Your task to perform on an android device: open a bookmark in the chrome app Image 0: 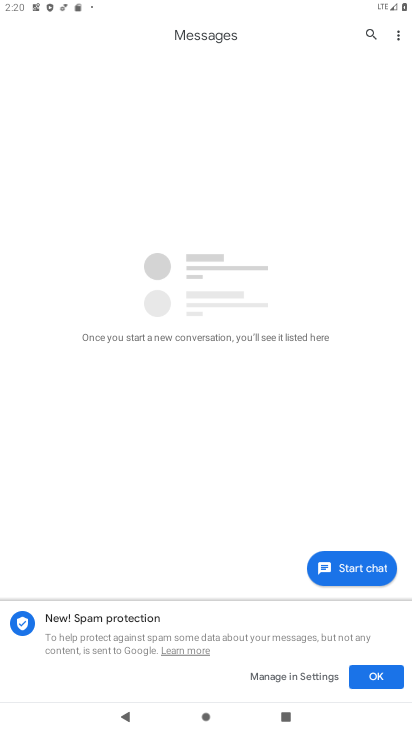
Step 0: press home button
Your task to perform on an android device: open a bookmark in the chrome app Image 1: 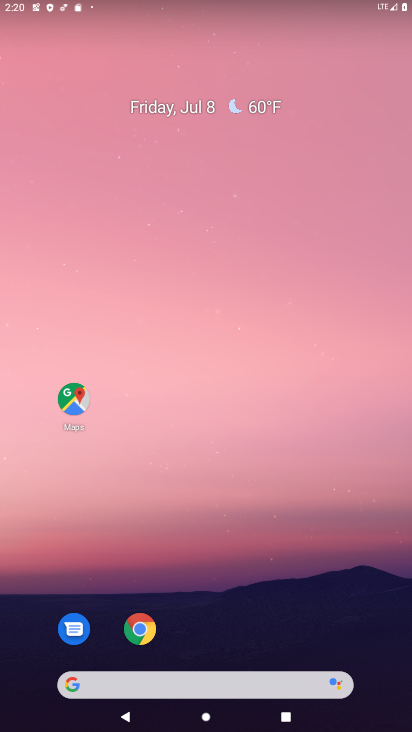
Step 1: click (139, 634)
Your task to perform on an android device: open a bookmark in the chrome app Image 2: 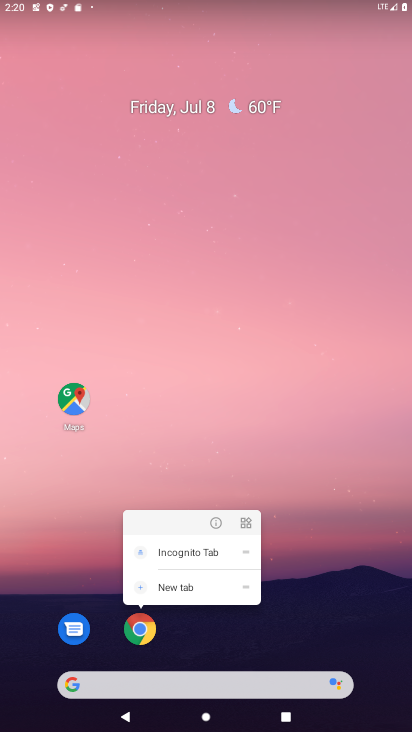
Step 2: click (130, 638)
Your task to perform on an android device: open a bookmark in the chrome app Image 3: 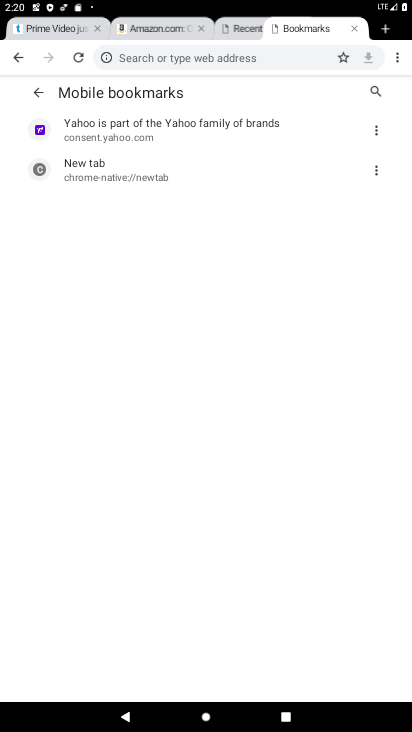
Step 3: click (400, 46)
Your task to perform on an android device: open a bookmark in the chrome app Image 4: 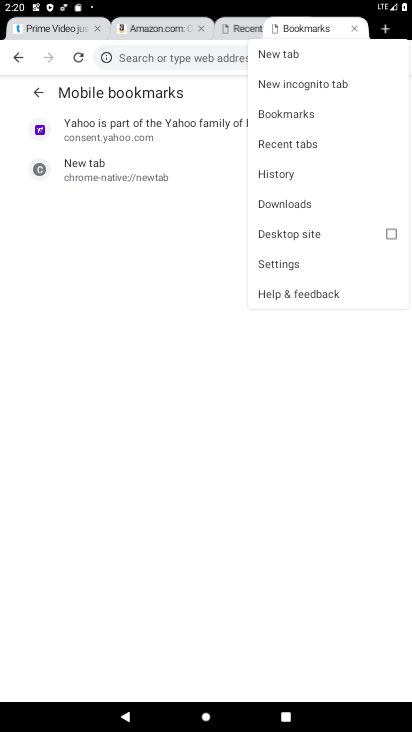
Step 4: click (308, 119)
Your task to perform on an android device: open a bookmark in the chrome app Image 5: 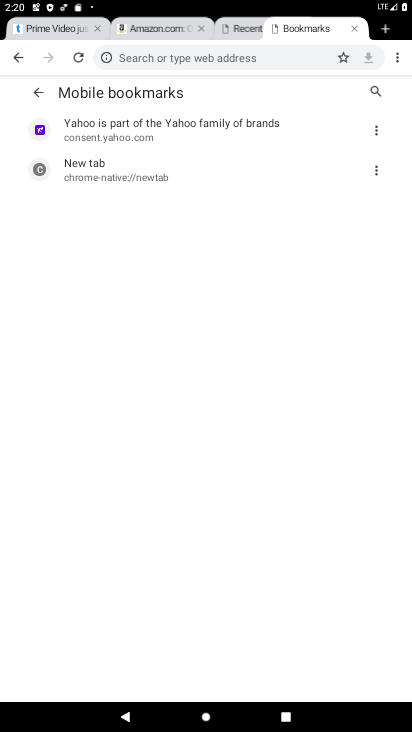
Step 5: click (153, 143)
Your task to perform on an android device: open a bookmark in the chrome app Image 6: 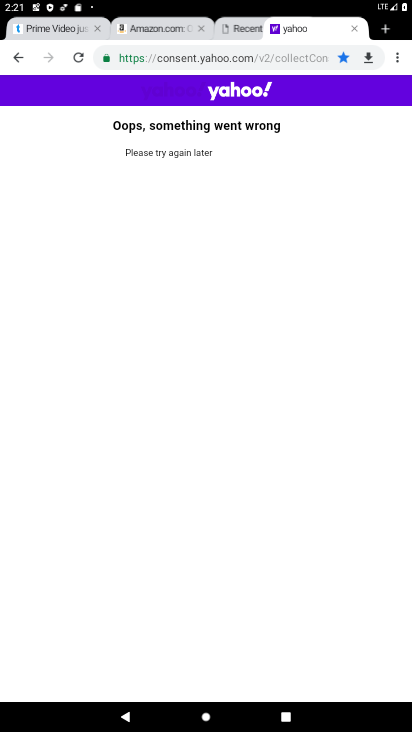
Step 6: task complete